Your task to perform on an android device: Open Amazon Image 0: 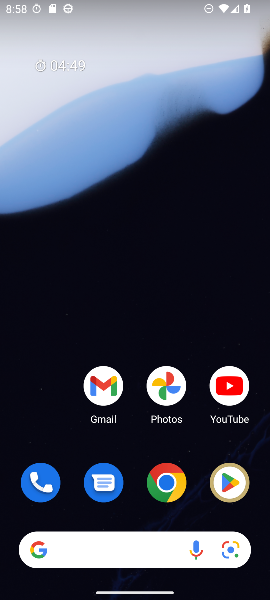
Step 0: press home button
Your task to perform on an android device: Open Amazon Image 1: 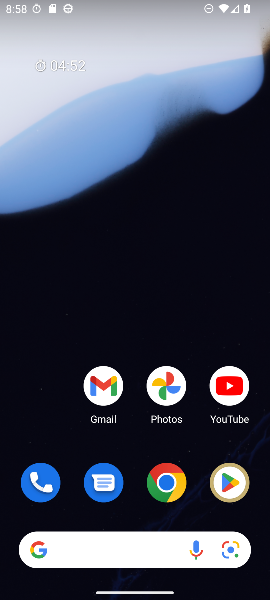
Step 1: click (164, 490)
Your task to perform on an android device: Open Amazon Image 2: 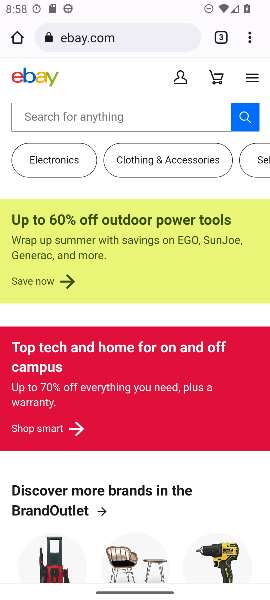
Step 2: click (216, 24)
Your task to perform on an android device: Open Amazon Image 3: 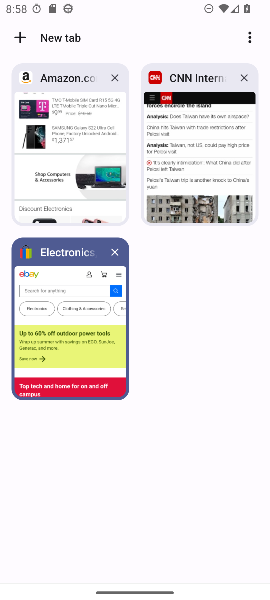
Step 3: click (77, 101)
Your task to perform on an android device: Open Amazon Image 4: 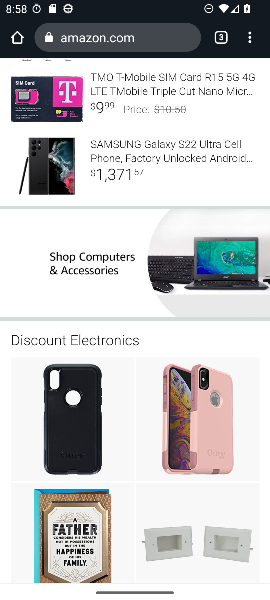
Step 4: task complete